Your task to perform on an android device: Open Amazon Image 0: 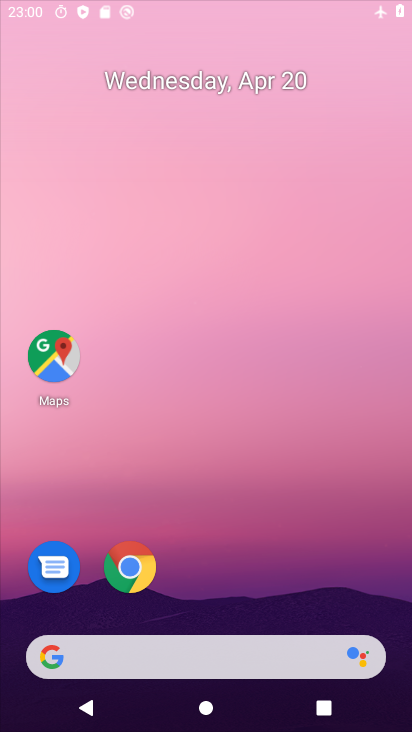
Step 0: drag from (183, 350) to (180, 214)
Your task to perform on an android device: Open Amazon Image 1: 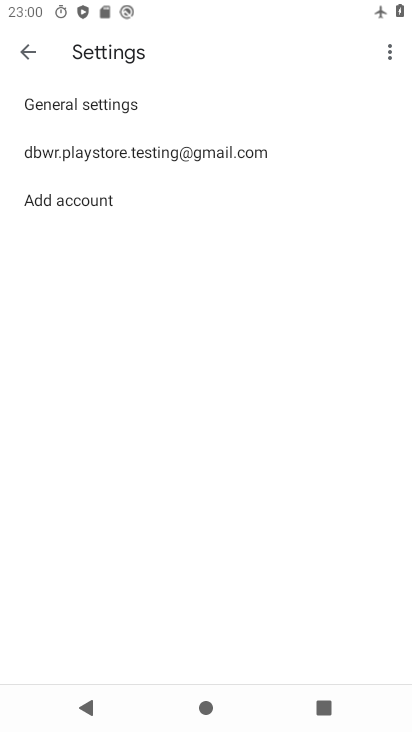
Step 1: press home button
Your task to perform on an android device: Open Amazon Image 2: 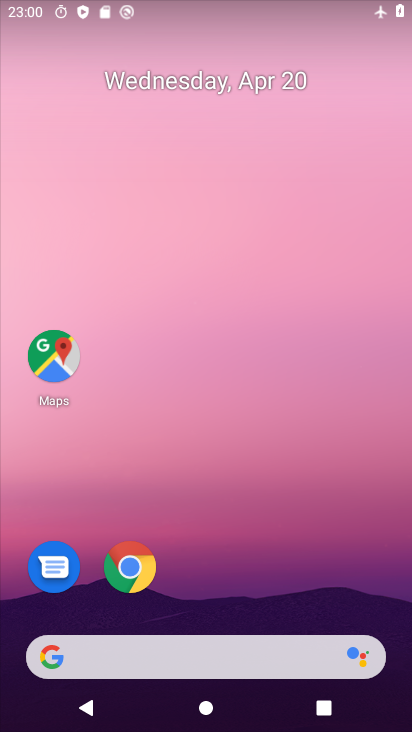
Step 2: drag from (267, 582) to (253, 205)
Your task to perform on an android device: Open Amazon Image 3: 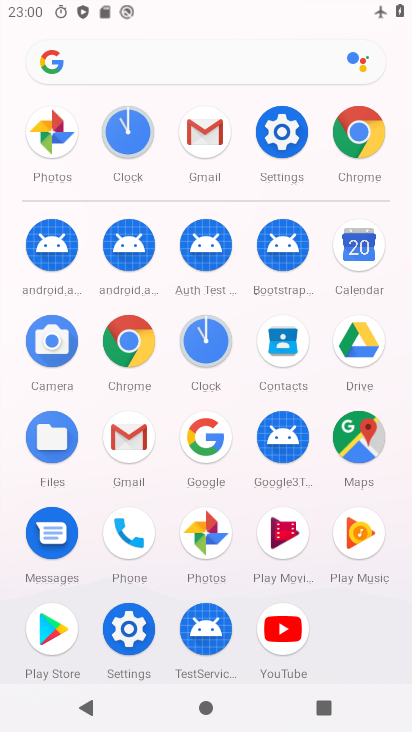
Step 3: click (133, 339)
Your task to perform on an android device: Open Amazon Image 4: 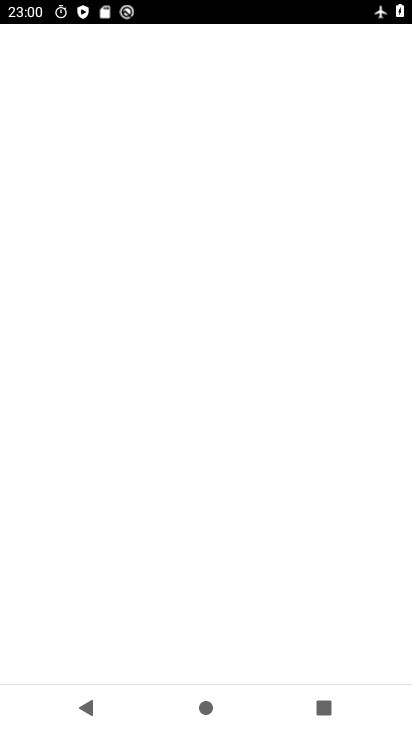
Step 4: click (133, 332)
Your task to perform on an android device: Open Amazon Image 5: 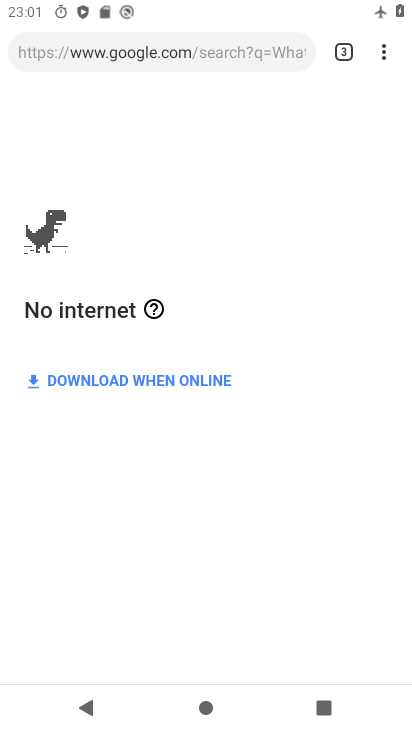
Step 5: click (382, 47)
Your task to perform on an android device: Open Amazon Image 6: 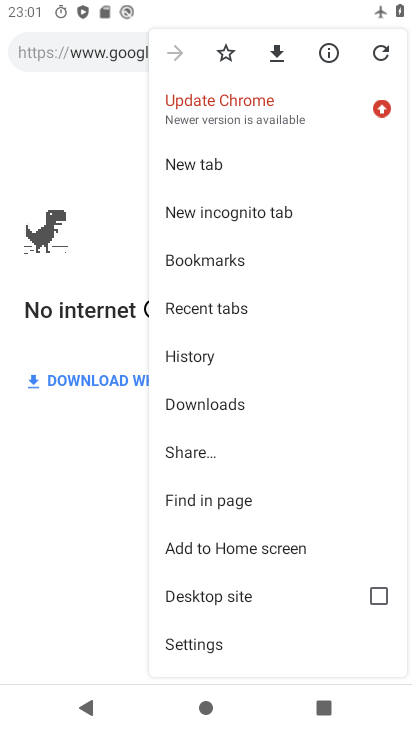
Step 6: click (252, 156)
Your task to perform on an android device: Open Amazon Image 7: 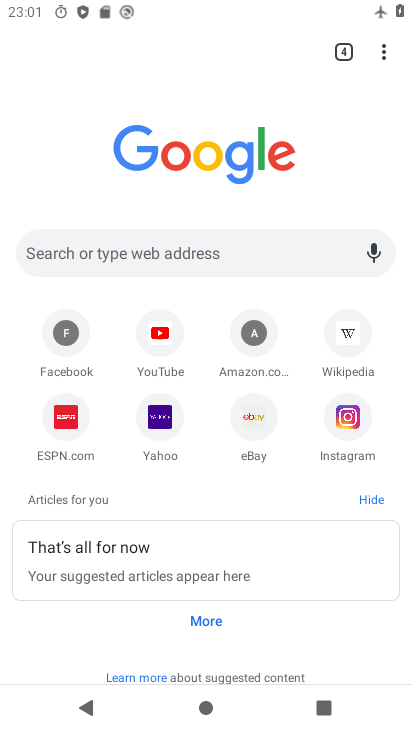
Step 7: click (252, 320)
Your task to perform on an android device: Open Amazon Image 8: 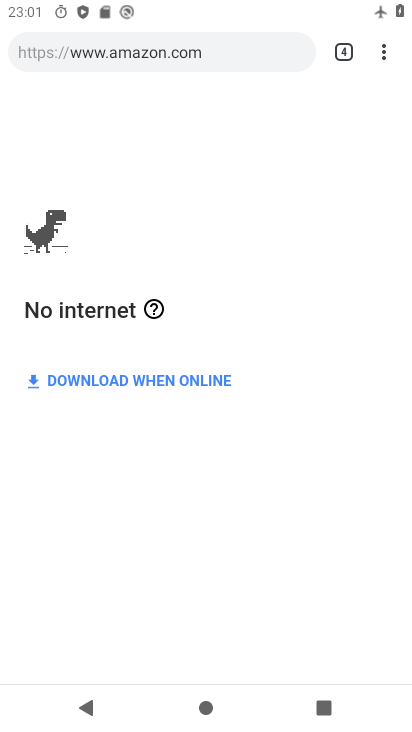
Step 8: task complete